Your task to perform on an android device: Go to privacy settings Image 0: 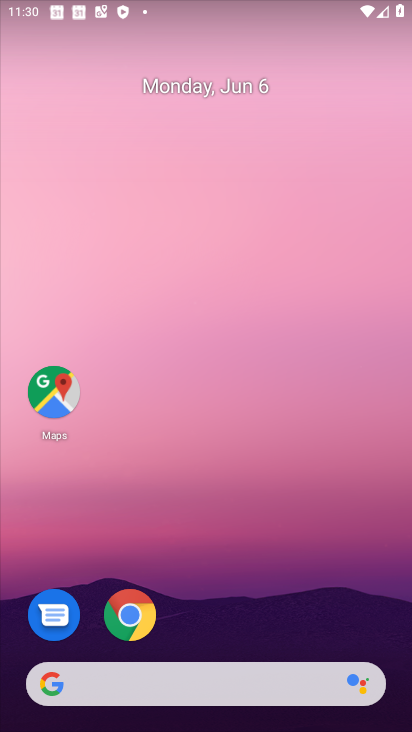
Step 0: drag from (307, 621) to (284, 63)
Your task to perform on an android device: Go to privacy settings Image 1: 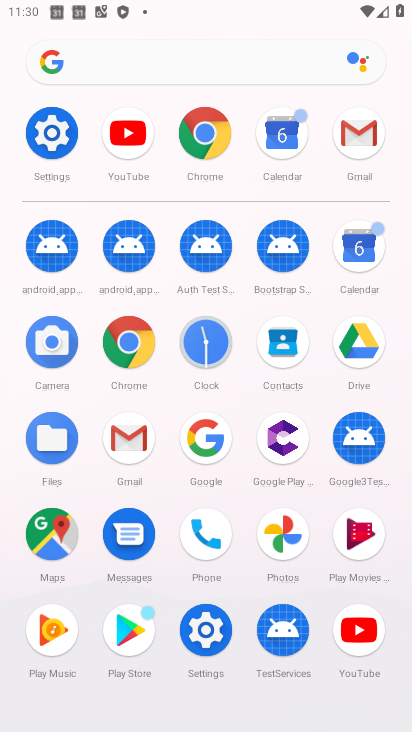
Step 1: click (34, 147)
Your task to perform on an android device: Go to privacy settings Image 2: 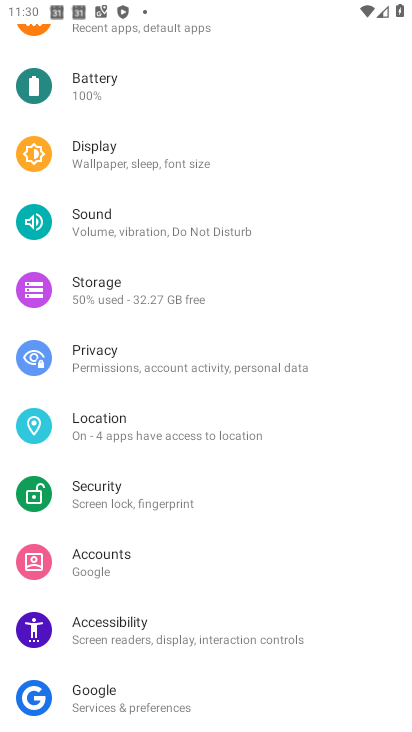
Step 2: click (170, 375)
Your task to perform on an android device: Go to privacy settings Image 3: 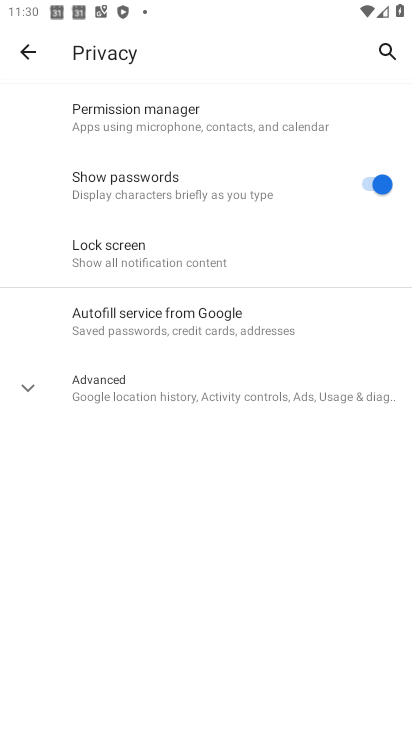
Step 3: task complete